Your task to perform on an android device: find snoozed emails in the gmail app Image 0: 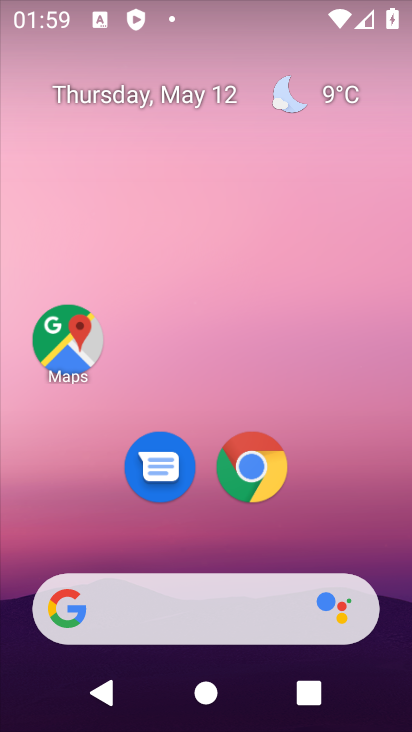
Step 0: drag from (316, 557) to (349, 309)
Your task to perform on an android device: find snoozed emails in the gmail app Image 1: 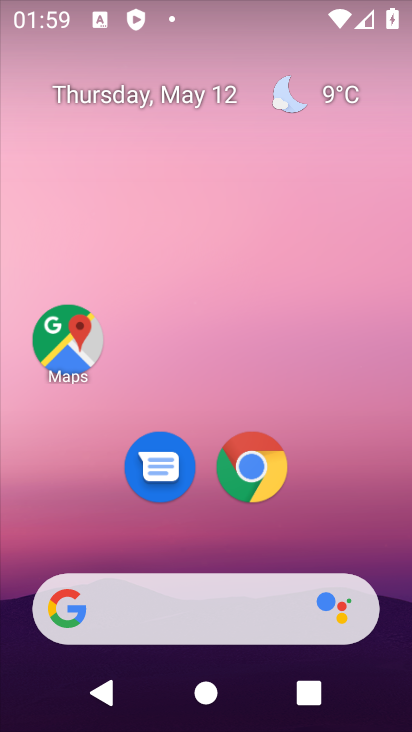
Step 1: drag from (351, 557) to (349, 221)
Your task to perform on an android device: find snoozed emails in the gmail app Image 2: 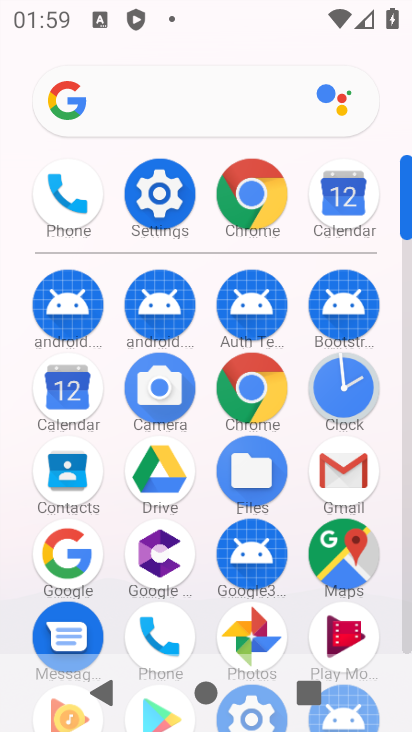
Step 2: click (353, 460)
Your task to perform on an android device: find snoozed emails in the gmail app Image 3: 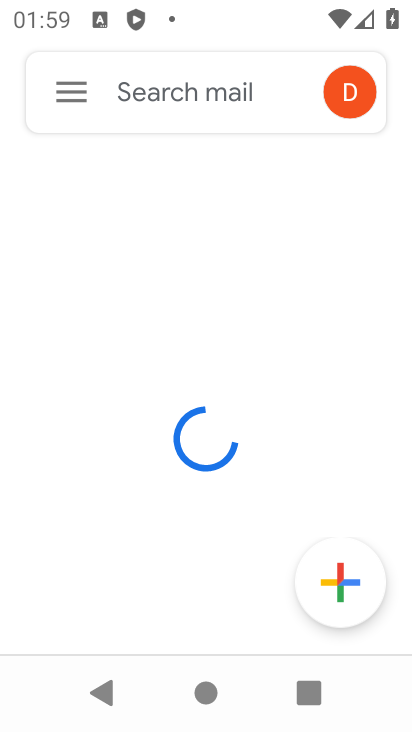
Step 3: click (69, 87)
Your task to perform on an android device: find snoozed emails in the gmail app Image 4: 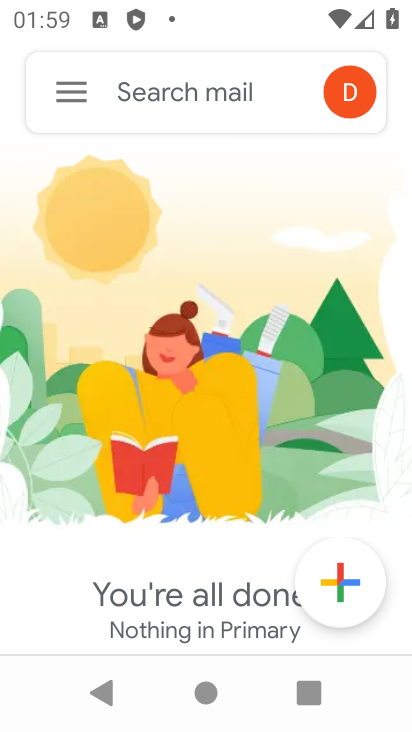
Step 4: click (73, 84)
Your task to perform on an android device: find snoozed emails in the gmail app Image 5: 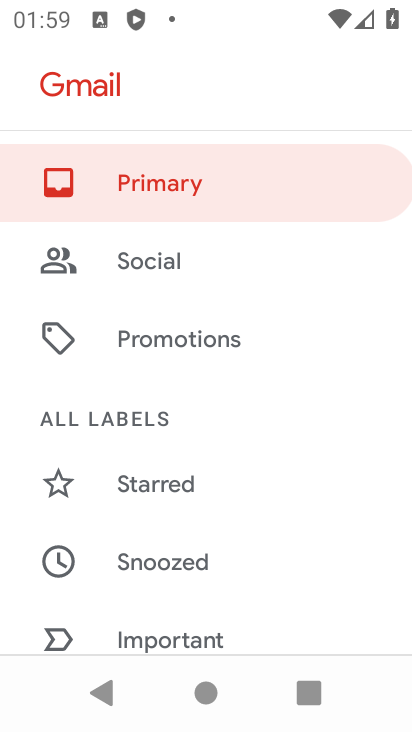
Step 5: click (162, 566)
Your task to perform on an android device: find snoozed emails in the gmail app Image 6: 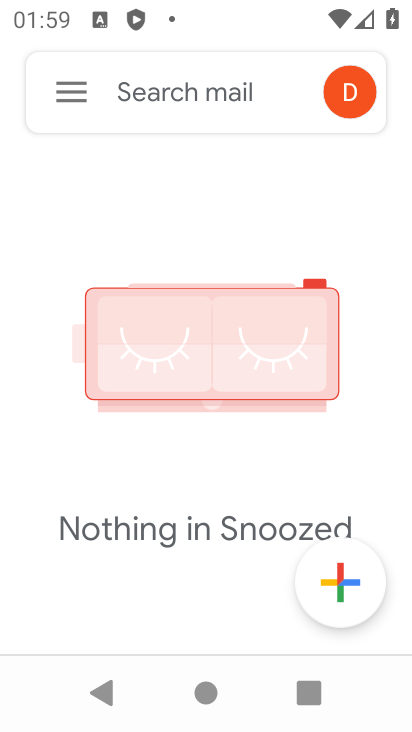
Step 6: task complete